Your task to perform on an android device: Open accessibility settings Image 0: 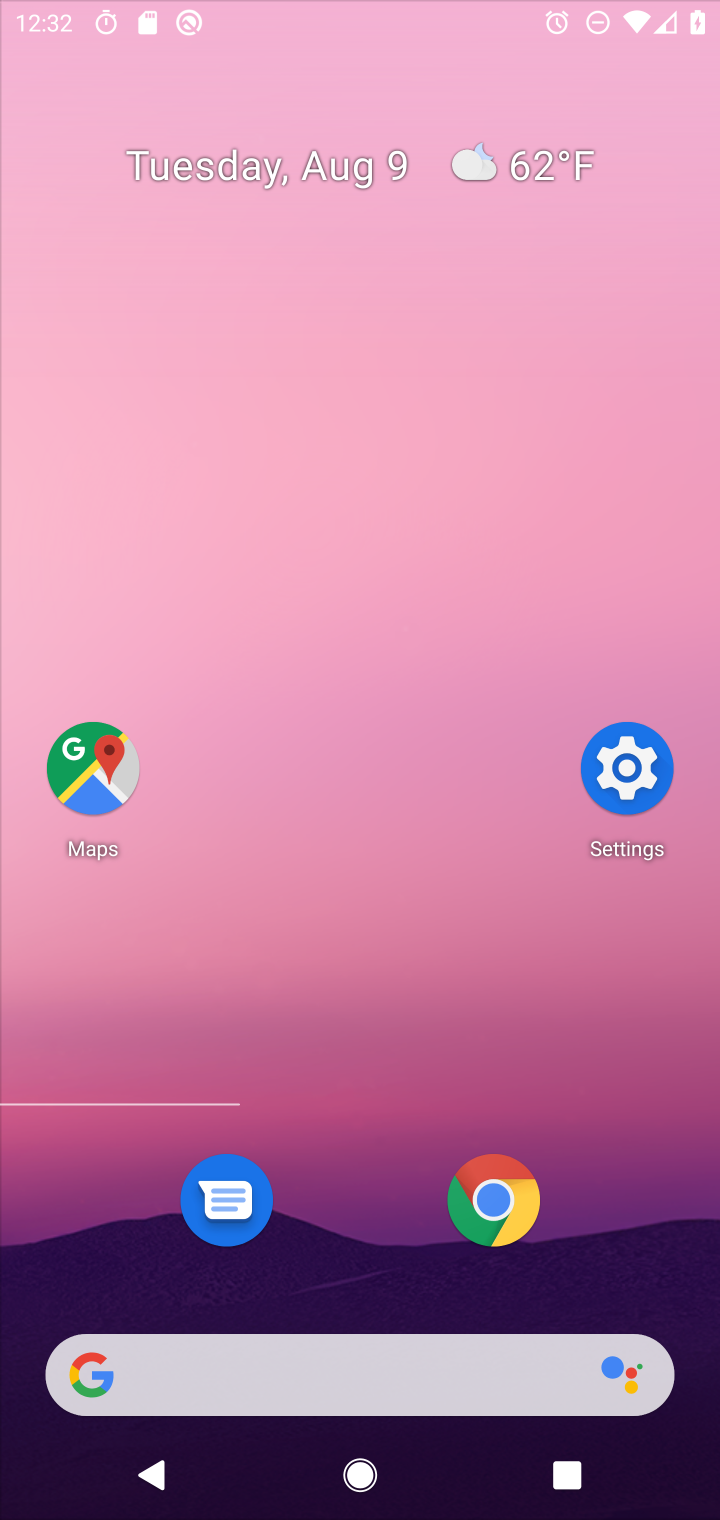
Step 0: press home button
Your task to perform on an android device: Open accessibility settings Image 1: 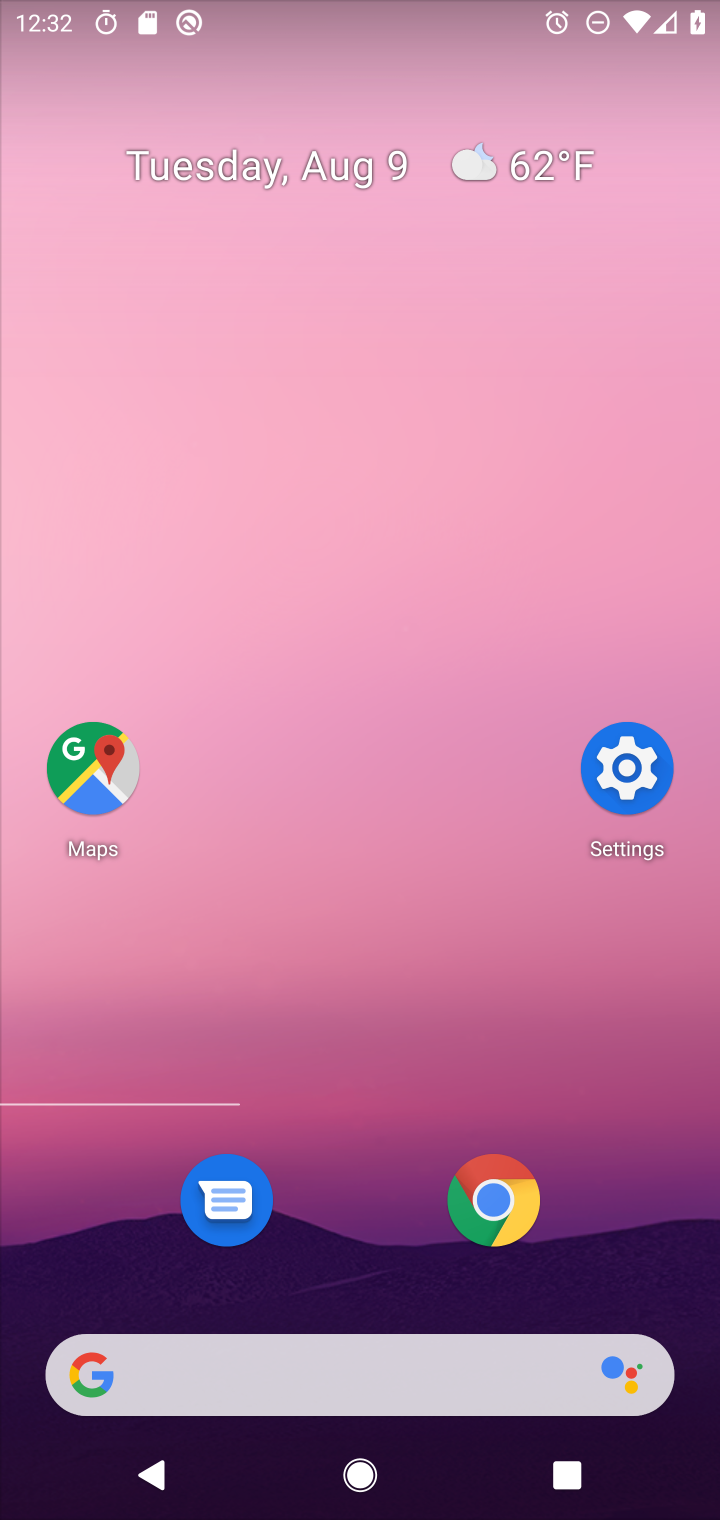
Step 1: click (638, 762)
Your task to perform on an android device: Open accessibility settings Image 2: 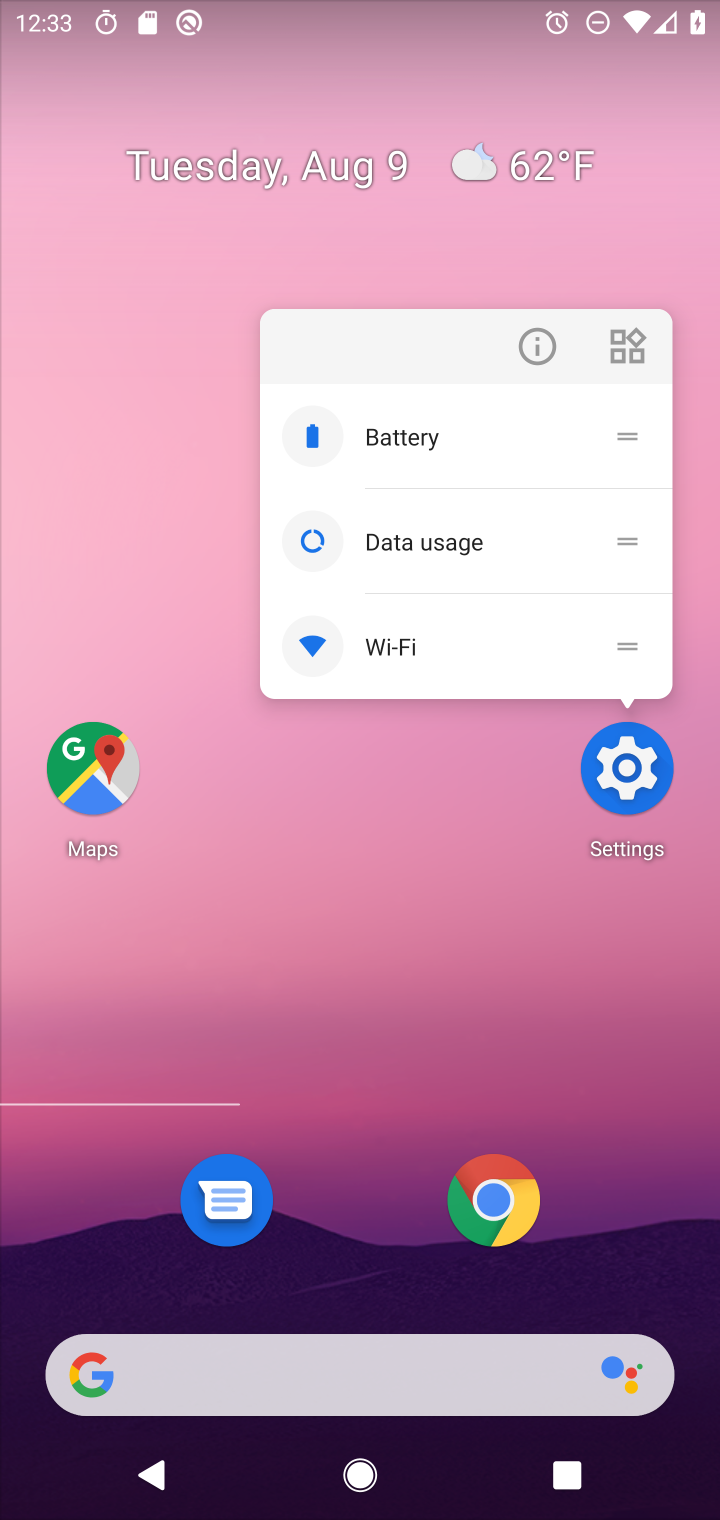
Step 2: click (638, 764)
Your task to perform on an android device: Open accessibility settings Image 3: 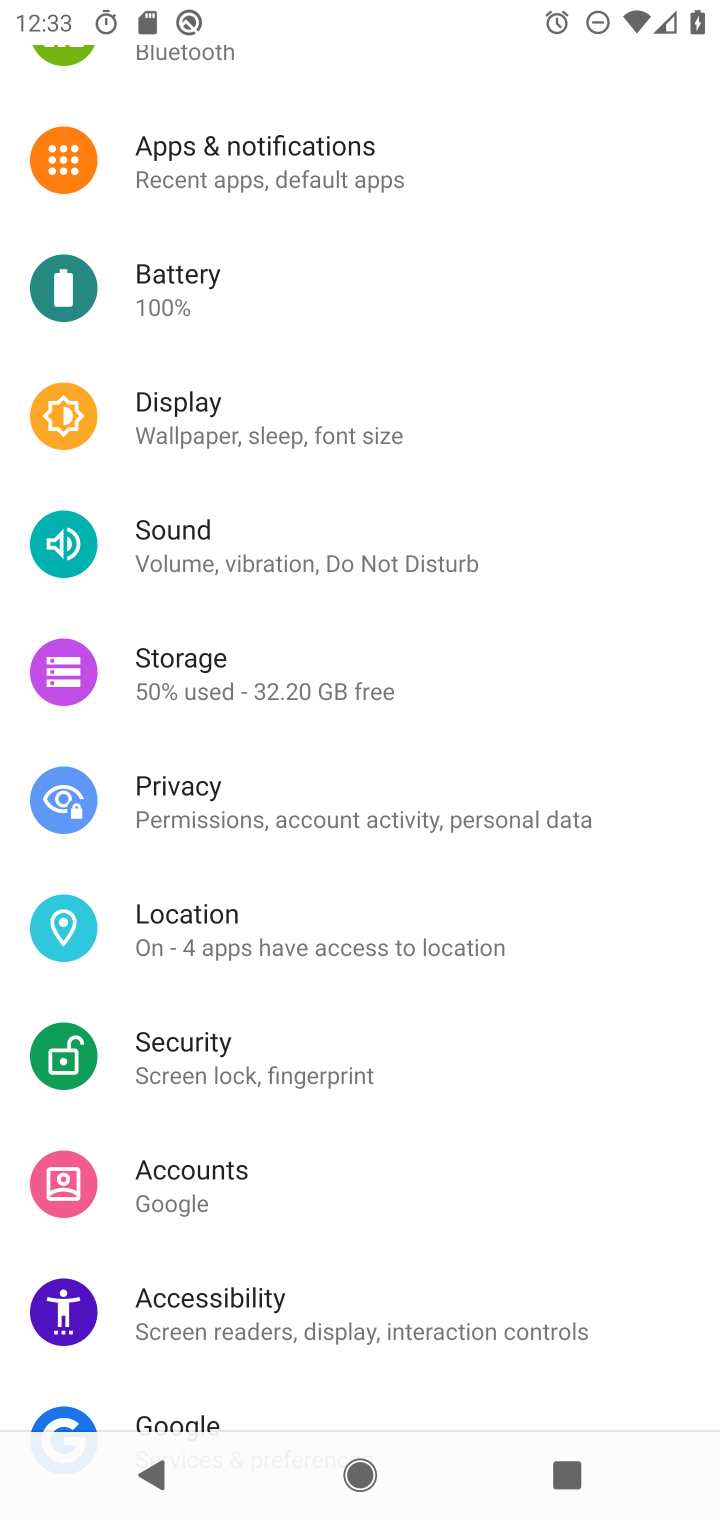
Step 3: click (209, 1313)
Your task to perform on an android device: Open accessibility settings Image 4: 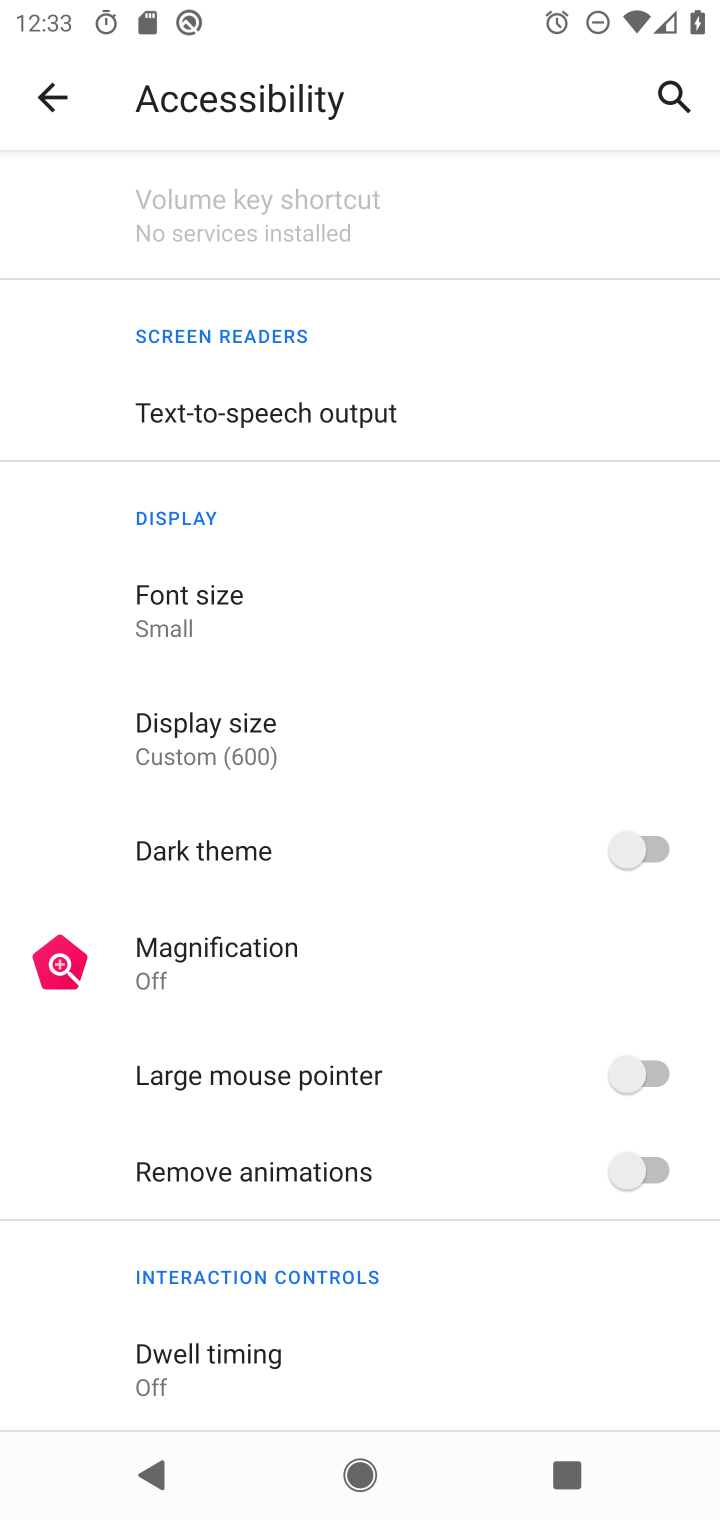
Step 4: task complete